Your task to perform on an android device: turn off notifications settings in the gmail app Image 0: 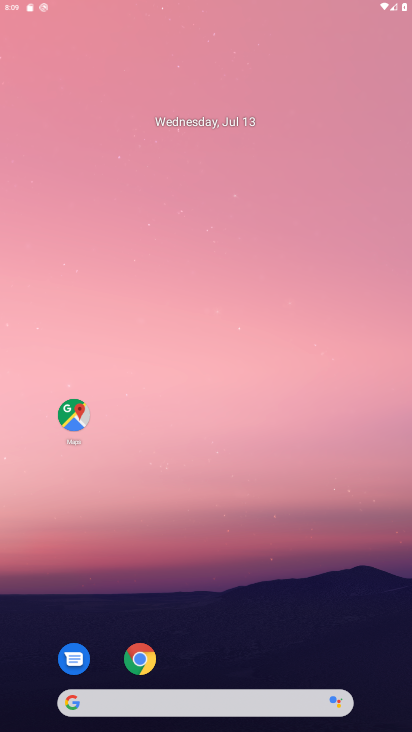
Step 0: click (166, 55)
Your task to perform on an android device: turn off notifications settings in the gmail app Image 1: 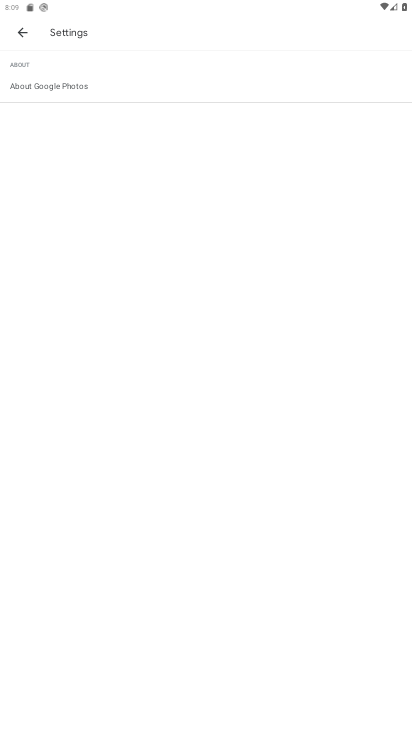
Step 1: press home button
Your task to perform on an android device: turn off notifications settings in the gmail app Image 2: 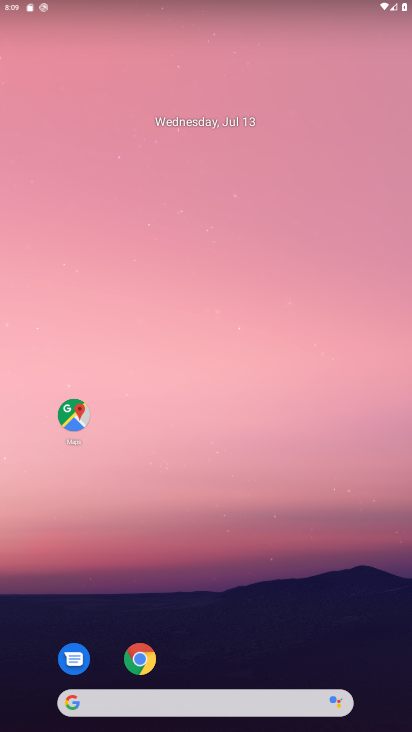
Step 2: drag from (221, 620) to (121, 116)
Your task to perform on an android device: turn off notifications settings in the gmail app Image 3: 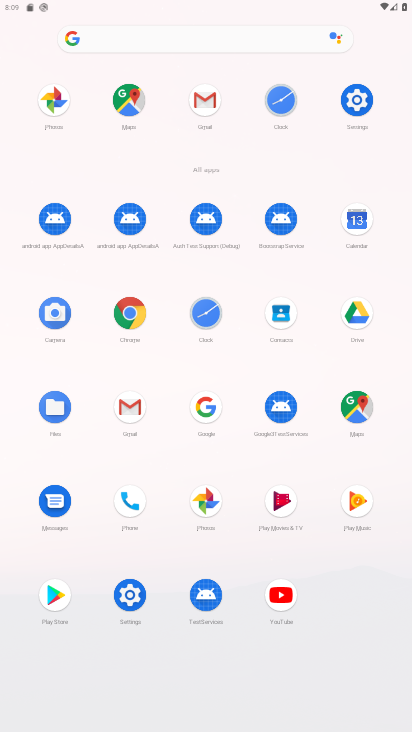
Step 3: click (119, 410)
Your task to perform on an android device: turn off notifications settings in the gmail app Image 4: 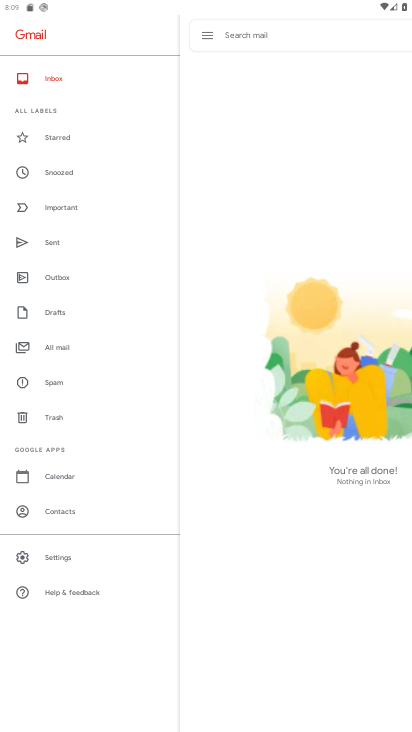
Step 4: click (49, 551)
Your task to perform on an android device: turn off notifications settings in the gmail app Image 5: 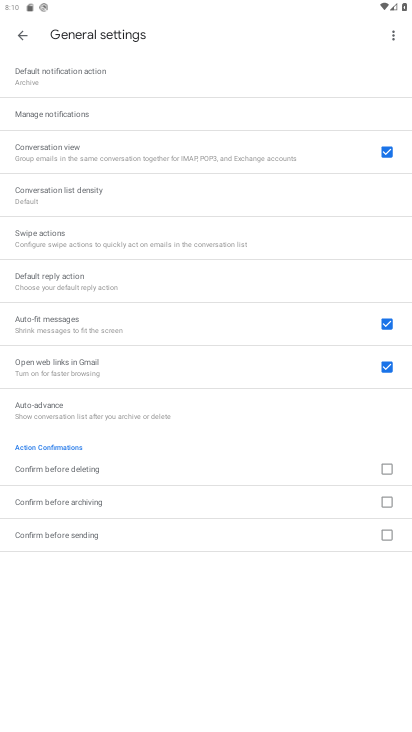
Step 5: click (49, 111)
Your task to perform on an android device: turn off notifications settings in the gmail app Image 6: 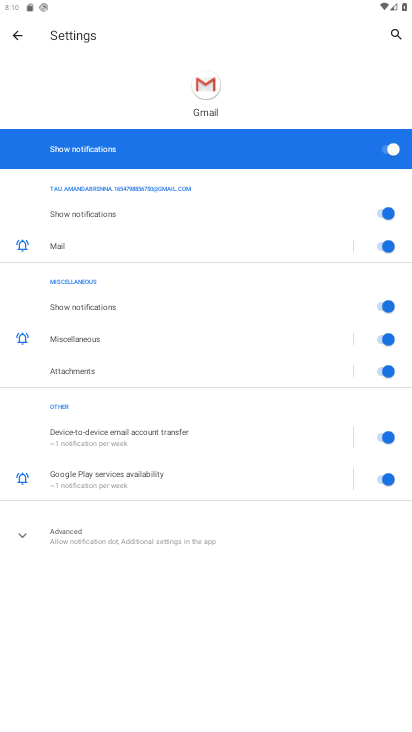
Step 6: click (399, 145)
Your task to perform on an android device: turn off notifications settings in the gmail app Image 7: 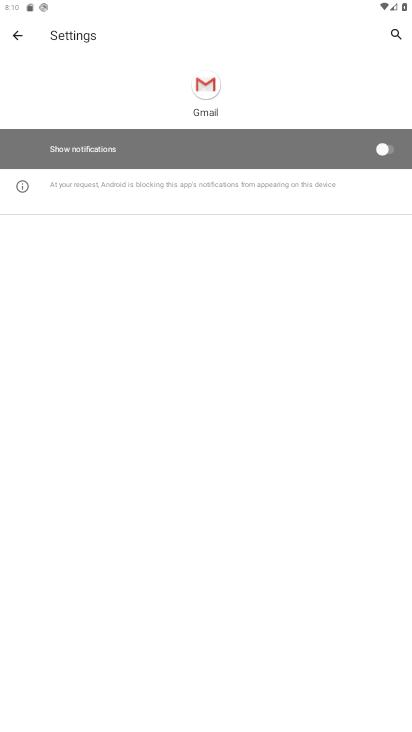
Step 7: task complete